Your task to perform on an android device: open app "Google Chrome" Image 0: 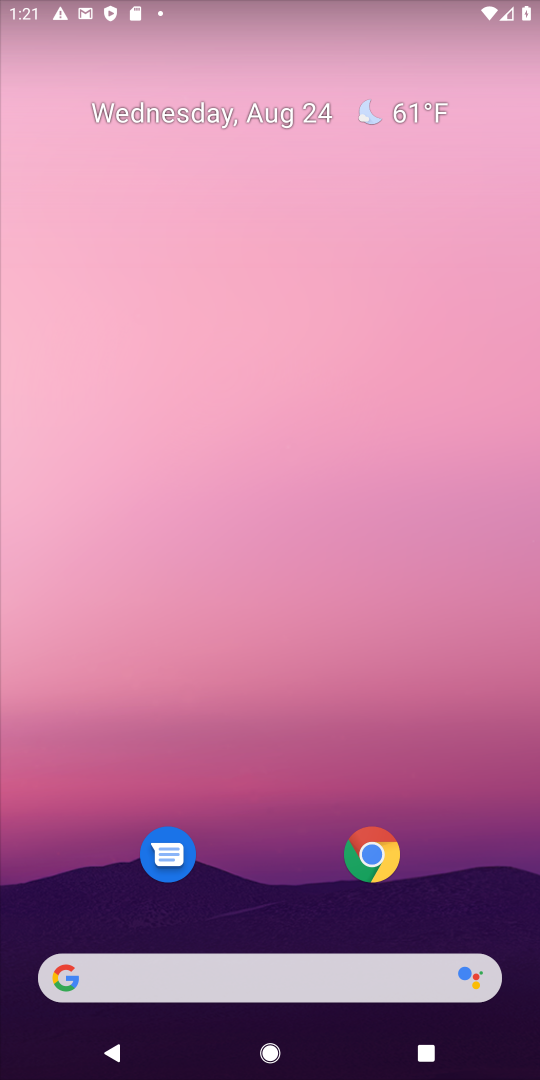
Step 0: drag from (457, 787) to (452, 95)
Your task to perform on an android device: open app "Google Chrome" Image 1: 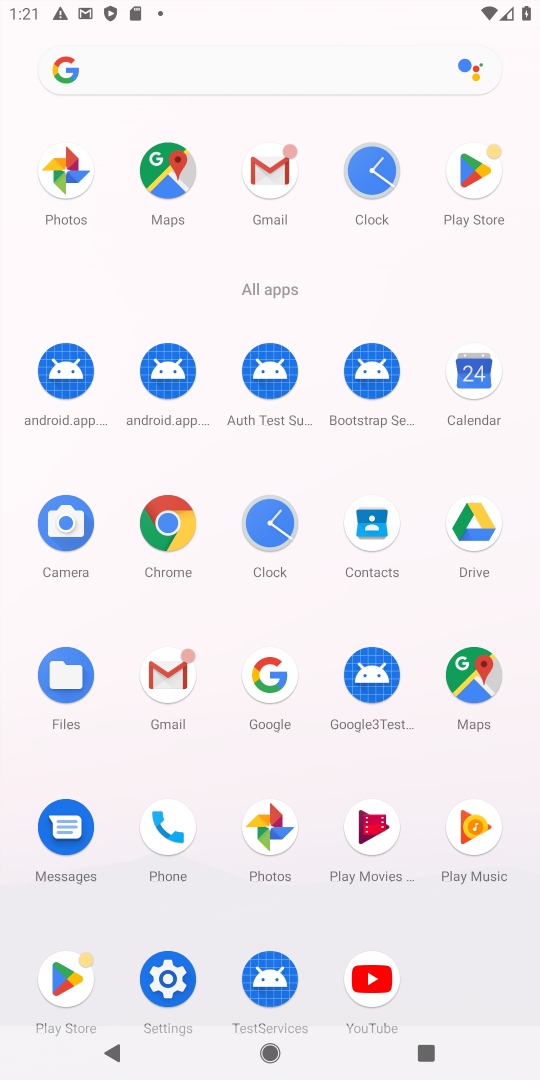
Step 1: click (473, 173)
Your task to perform on an android device: open app "Google Chrome" Image 2: 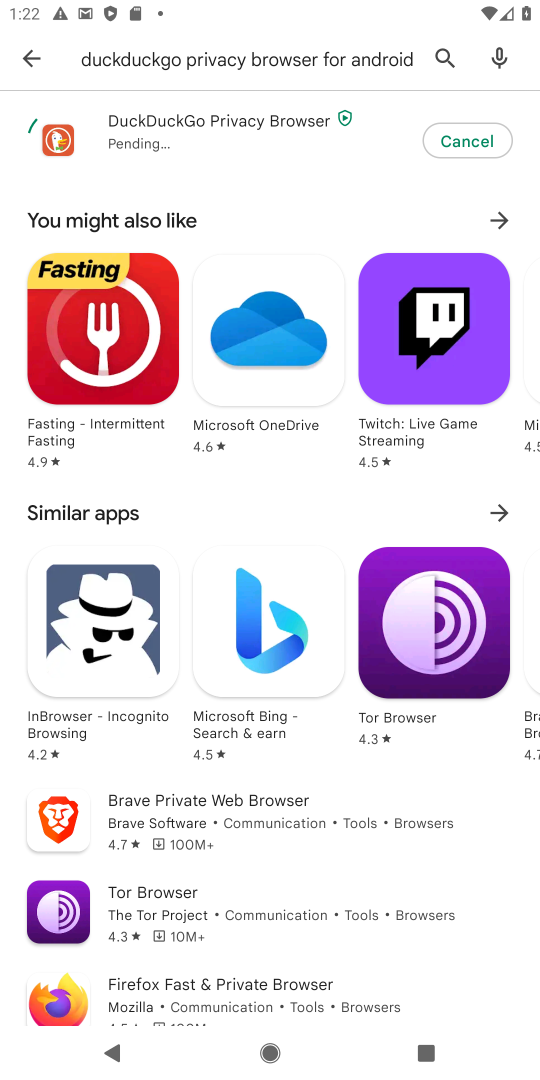
Step 2: press back button
Your task to perform on an android device: open app "Google Chrome" Image 3: 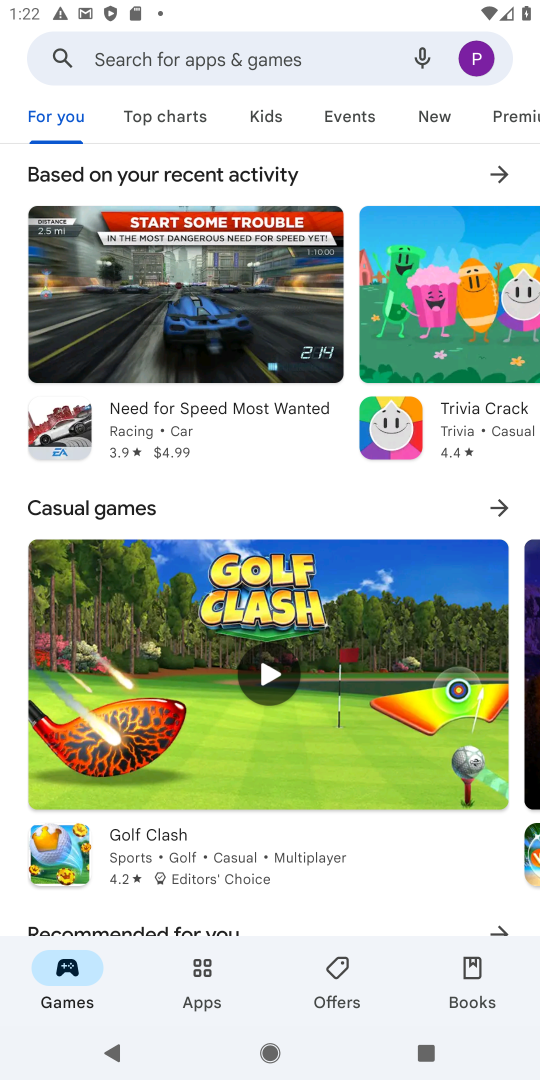
Step 3: click (278, 53)
Your task to perform on an android device: open app "Google Chrome" Image 4: 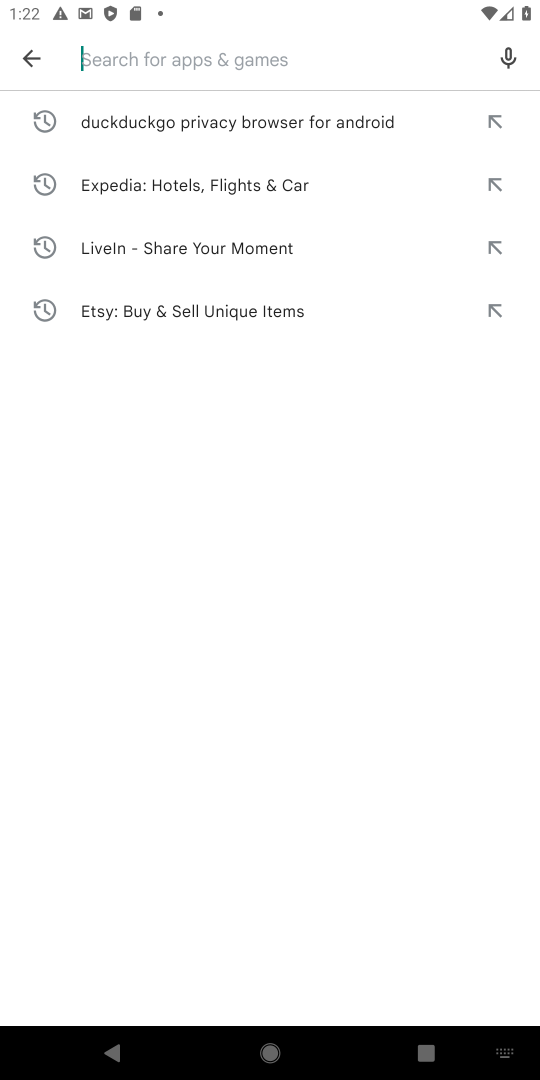
Step 4: type "Google Chrome"
Your task to perform on an android device: open app "Google Chrome" Image 5: 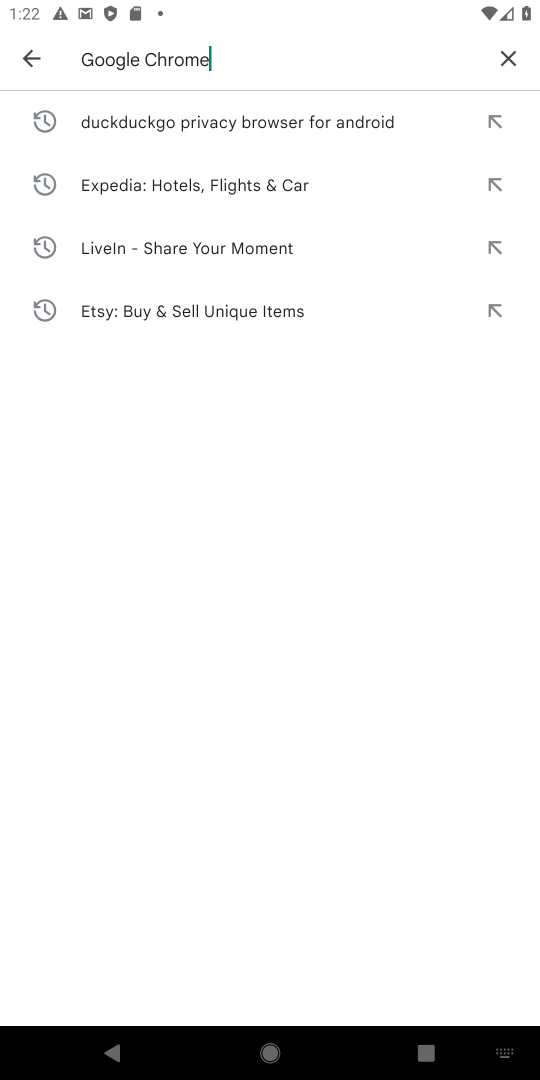
Step 5: press enter
Your task to perform on an android device: open app "Google Chrome" Image 6: 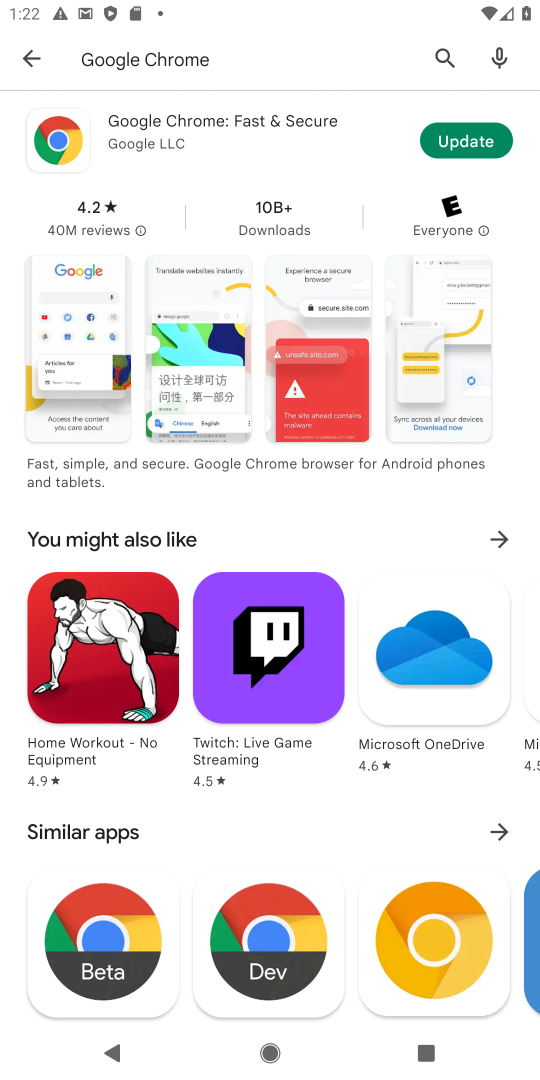
Step 6: task complete